Your task to perform on an android device: What's the weather going to be tomorrow? Image 0: 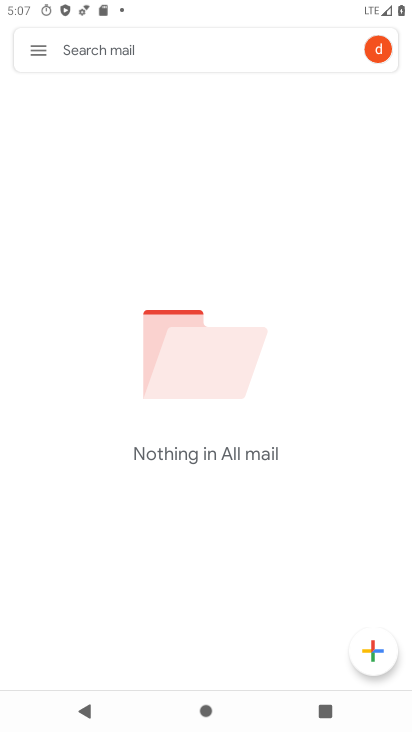
Step 0: press home button
Your task to perform on an android device: What's the weather going to be tomorrow? Image 1: 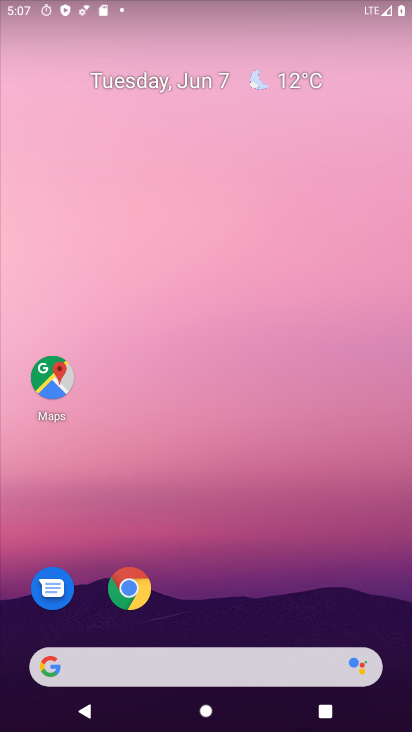
Step 1: drag from (184, 629) to (189, 44)
Your task to perform on an android device: What's the weather going to be tomorrow? Image 2: 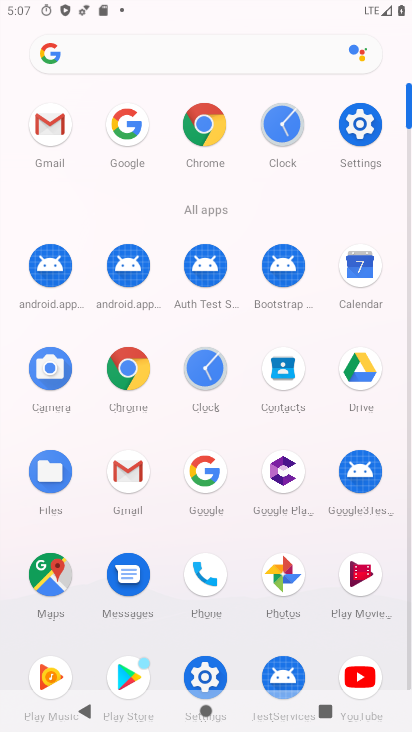
Step 2: click (199, 507)
Your task to perform on an android device: What's the weather going to be tomorrow? Image 3: 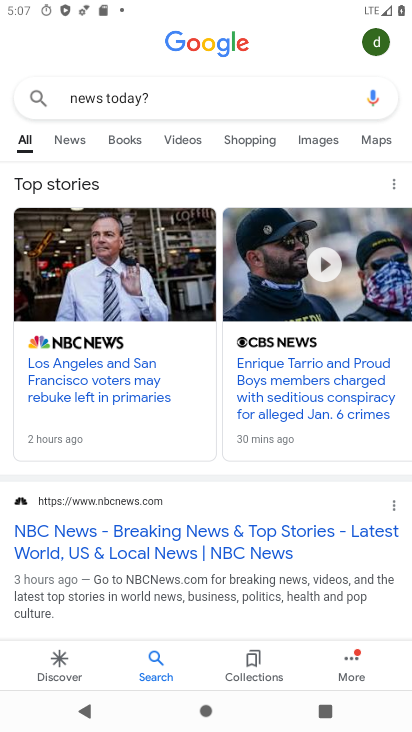
Step 3: click (228, 106)
Your task to perform on an android device: What's the weather going to be tomorrow? Image 4: 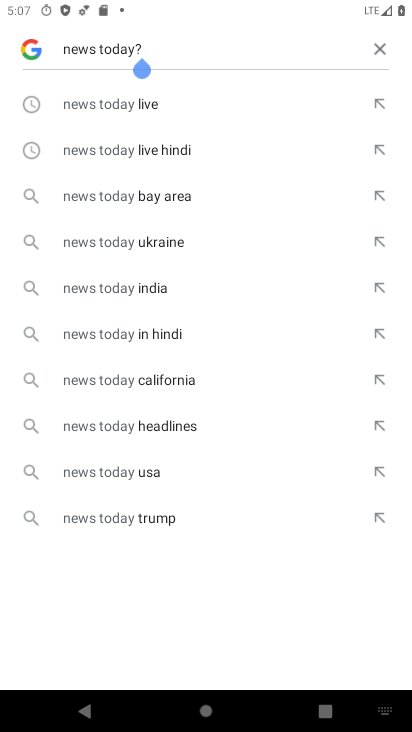
Step 4: click (377, 59)
Your task to perform on an android device: What's the weather going to be tomorrow? Image 5: 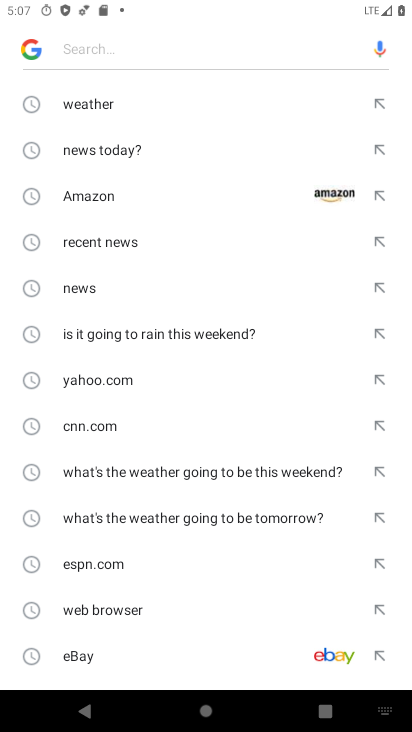
Step 5: click (125, 120)
Your task to perform on an android device: What's the weather going to be tomorrow? Image 6: 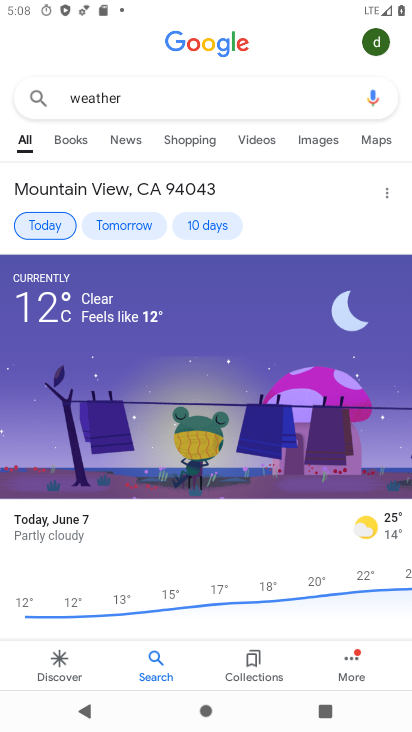
Step 6: task complete